Your task to perform on an android device: uninstall "NewsBreak: Local News & Alerts" Image 0: 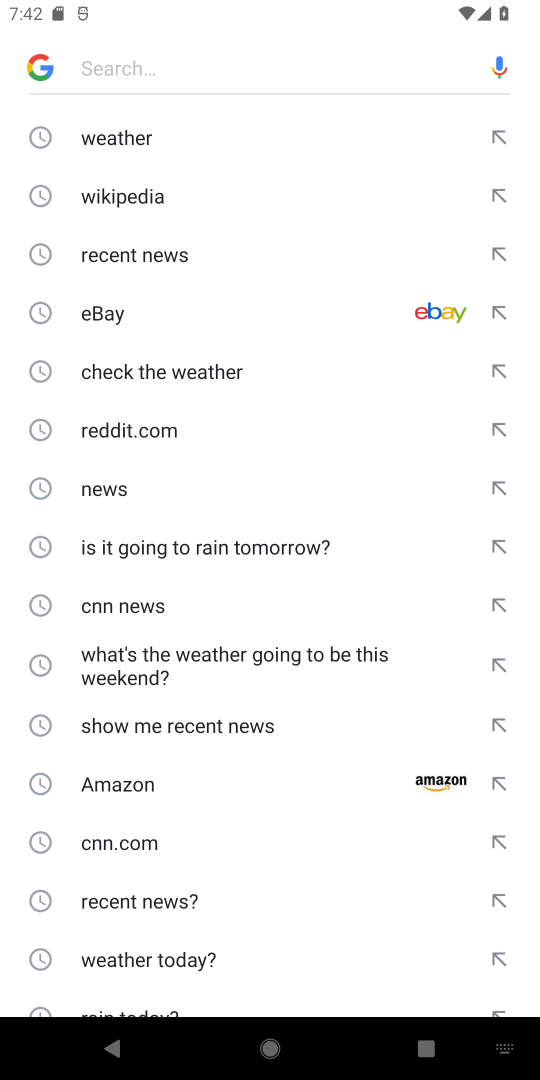
Step 0: press home button
Your task to perform on an android device: uninstall "NewsBreak: Local News & Alerts" Image 1: 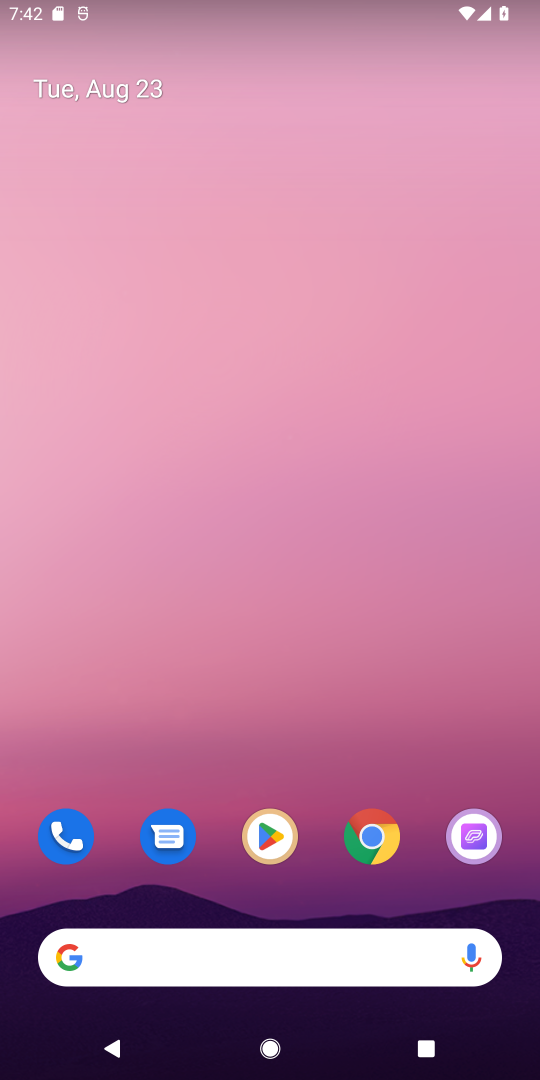
Step 1: click (262, 833)
Your task to perform on an android device: uninstall "NewsBreak: Local News & Alerts" Image 2: 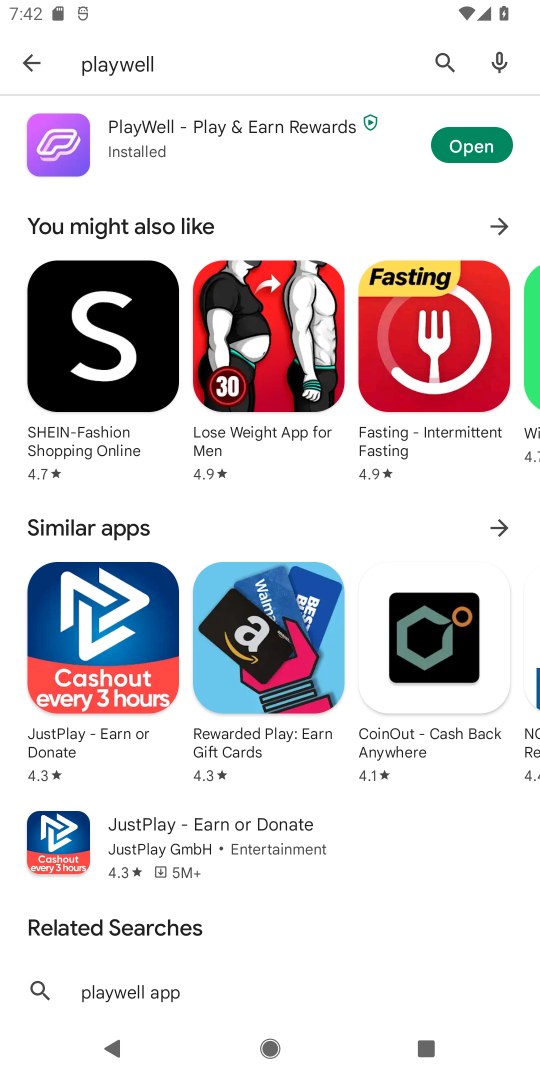
Step 2: click (443, 67)
Your task to perform on an android device: uninstall "NewsBreak: Local News & Alerts" Image 3: 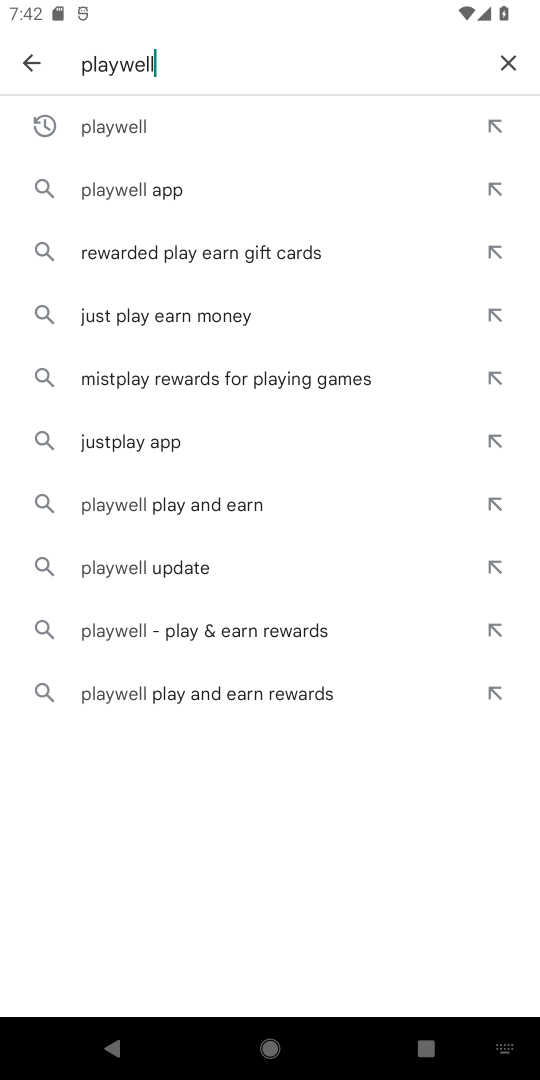
Step 3: click (499, 51)
Your task to perform on an android device: uninstall "NewsBreak: Local News & Alerts" Image 4: 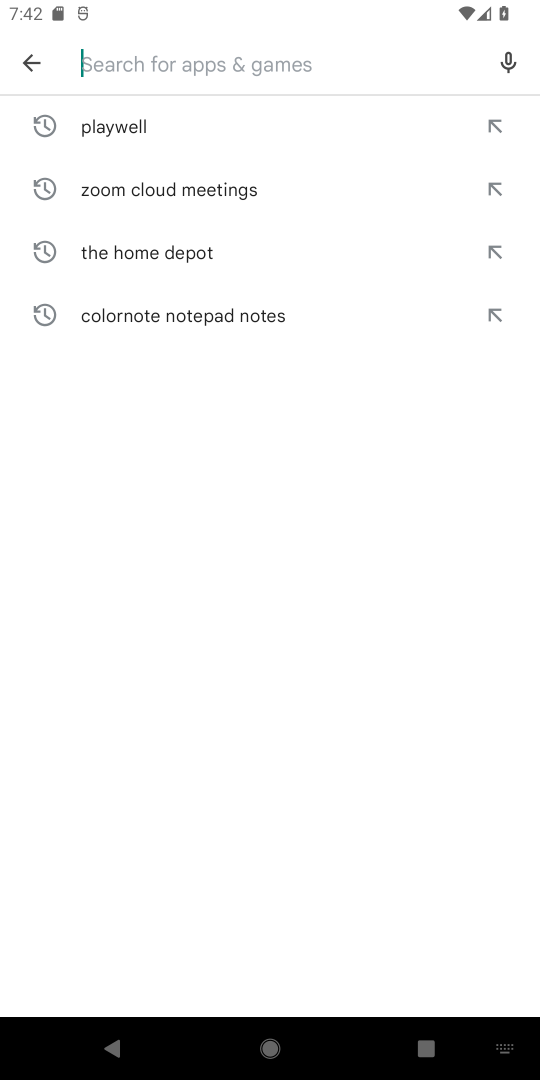
Step 4: type "NewsBreak: Local News & Alerts"
Your task to perform on an android device: uninstall "NewsBreak: Local News & Alerts" Image 5: 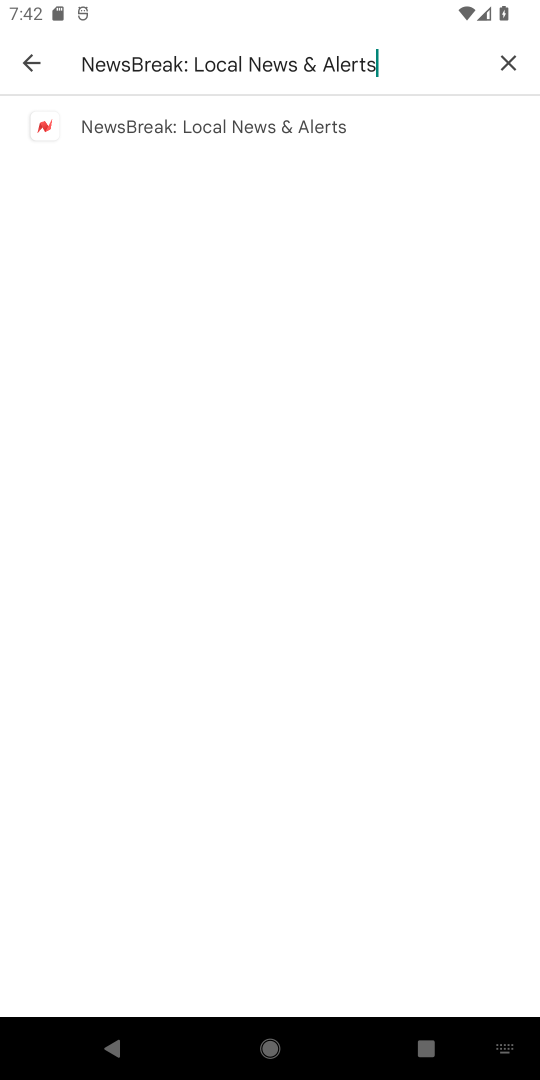
Step 5: click (183, 126)
Your task to perform on an android device: uninstall "NewsBreak: Local News & Alerts" Image 6: 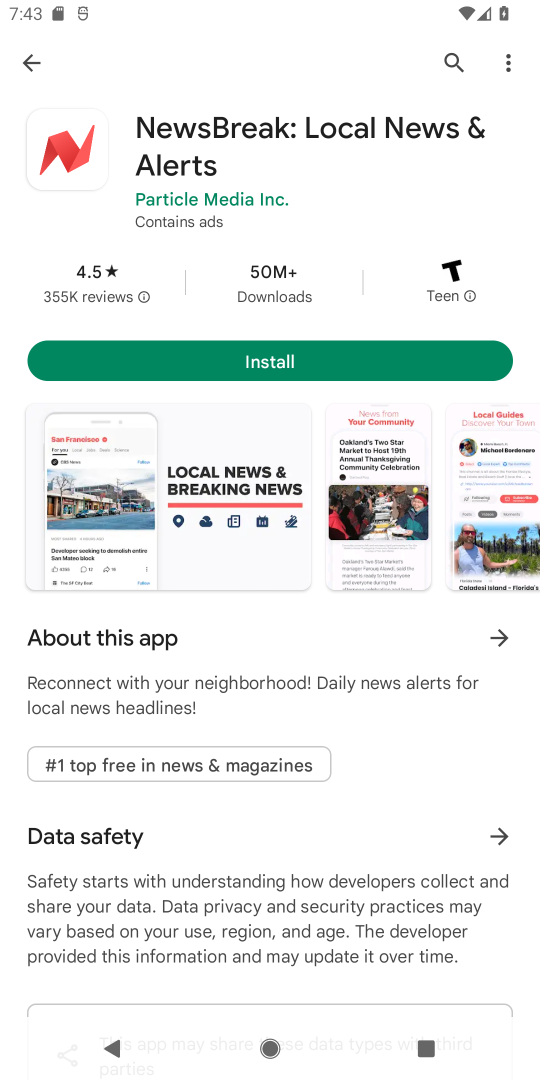
Step 6: task complete